Your task to perform on an android device: Check the news Image 0: 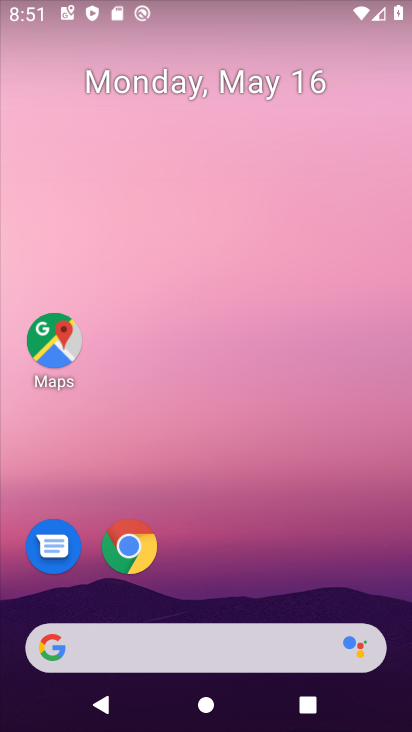
Step 0: drag from (242, 672) to (255, 198)
Your task to perform on an android device: Check the news Image 1: 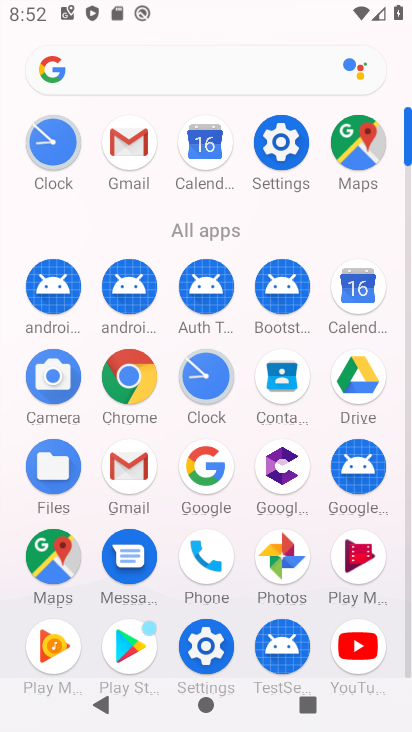
Step 1: click (140, 75)
Your task to perform on an android device: Check the news Image 2: 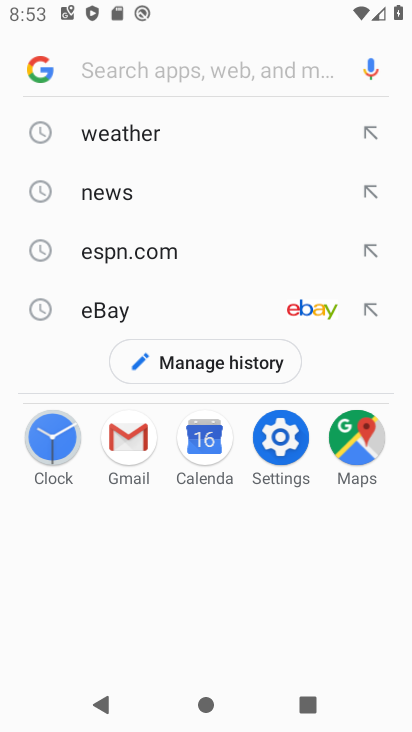
Step 2: click (134, 178)
Your task to perform on an android device: Check the news Image 3: 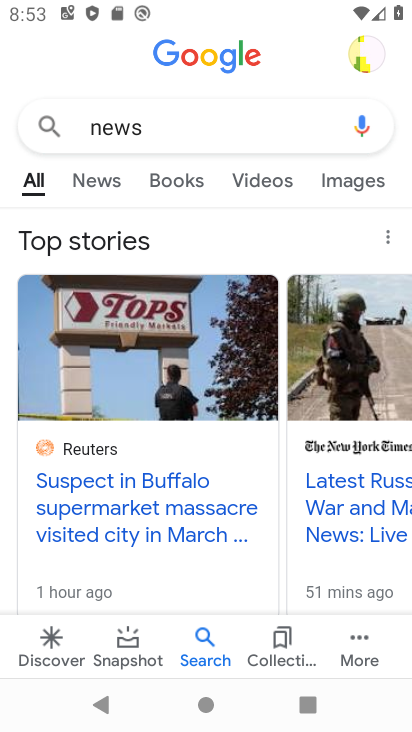
Step 3: task complete